Your task to perform on an android device: remove spam from my inbox in the gmail app Image 0: 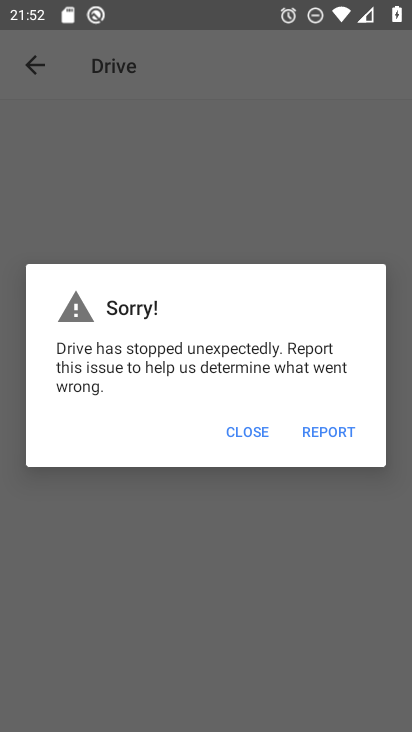
Step 0: press home button
Your task to perform on an android device: remove spam from my inbox in the gmail app Image 1: 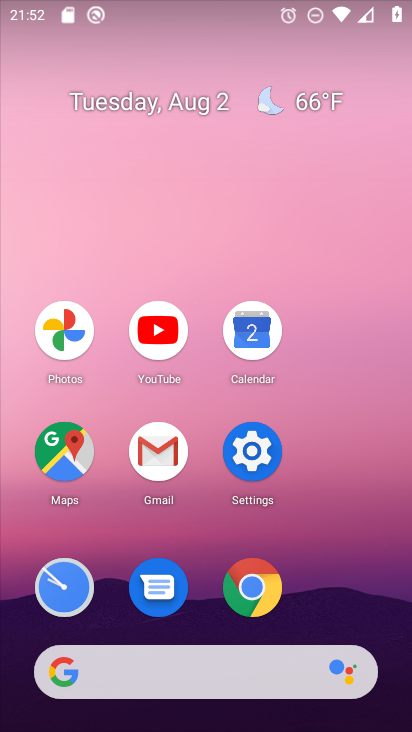
Step 1: click (161, 456)
Your task to perform on an android device: remove spam from my inbox in the gmail app Image 2: 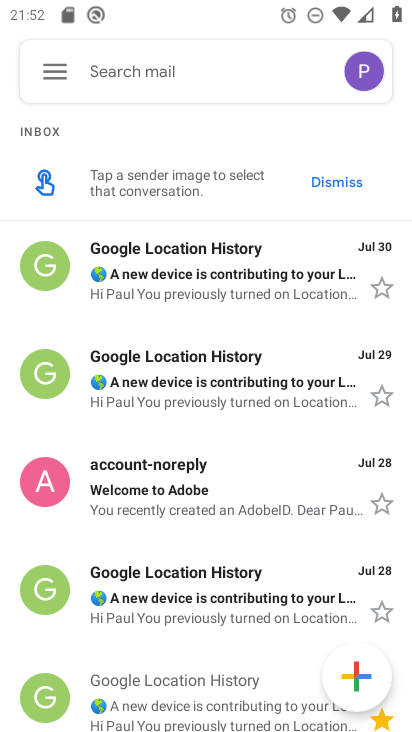
Step 2: click (53, 71)
Your task to perform on an android device: remove spam from my inbox in the gmail app Image 3: 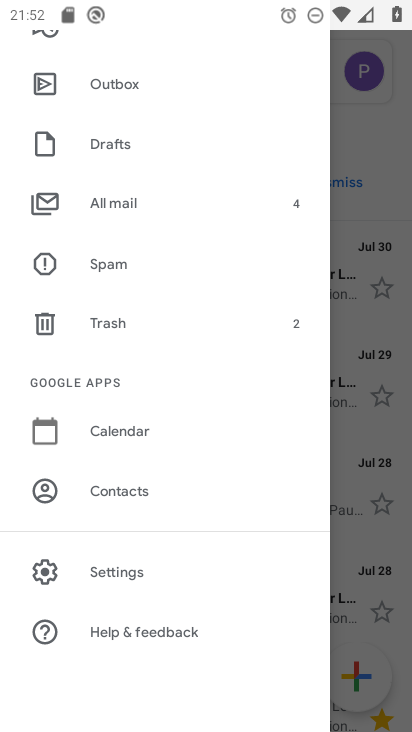
Step 3: click (116, 259)
Your task to perform on an android device: remove spam from my inbox in the gmail app Image 4: 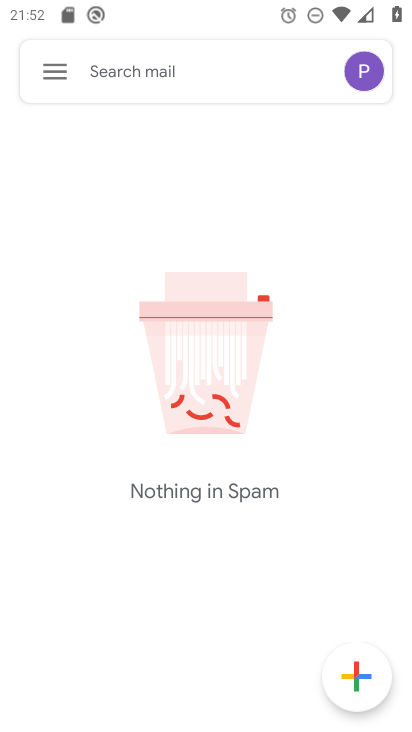
Step 4: task complete